Your task to perform on an android device: Open calendar and show me the third week of next month Image 0: 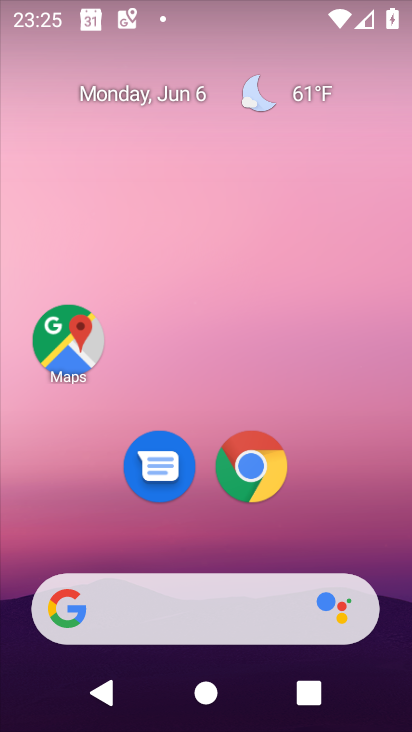
Step 0: press home button
Your task to perform on an android device: Open calendar and show me the third week of next month Image 1: 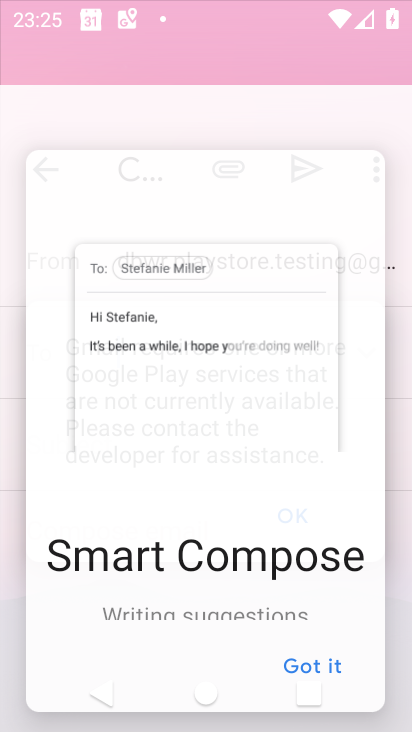
Step 1: drag from (374, 613) to (369, 48)
Your task to perform on an android device: Open calendar and show me the third week of next month Image 2: 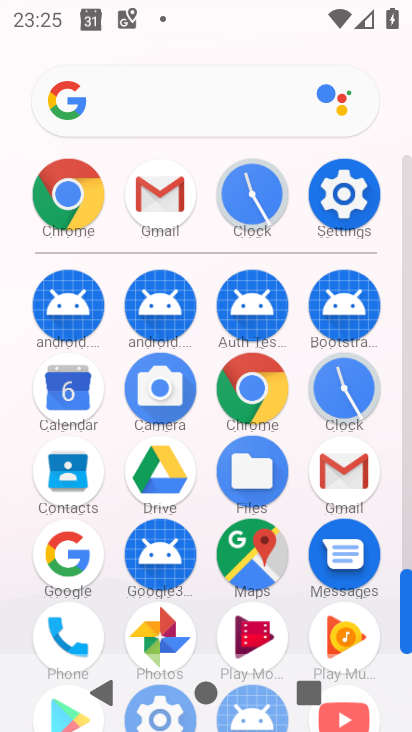
Step 2: click (95, 406)
Your task to perform on an android device: Open calendar and show me the third week of next month Image 3: 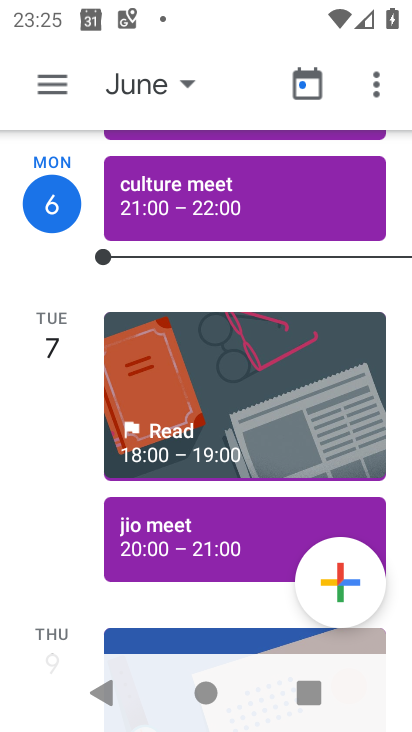
Step 3: click (169, 74)
Your task to perform on an android device: Open calendar and show me the third week of next month Image 4: 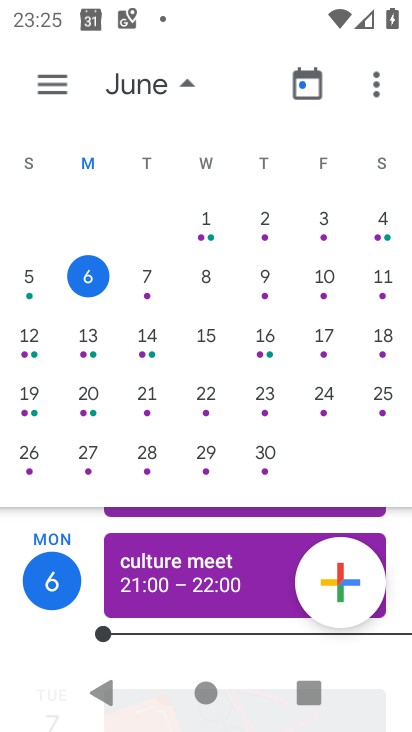
Step 4: drag from (410, 311) to (11, 286)
Your task to perform on an android device: Open calendar and show me the third week of next month Image 5: 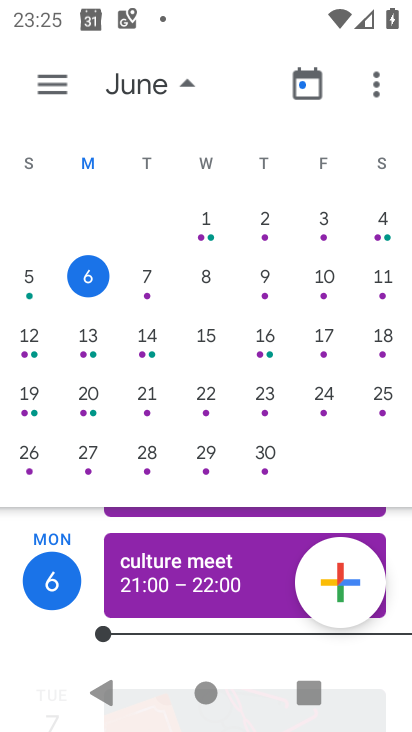
Step 5: drag from (398, 330) to (11, 449)
Your task to perform on an android device: Open calendar and show me the third week of next month Image 6: 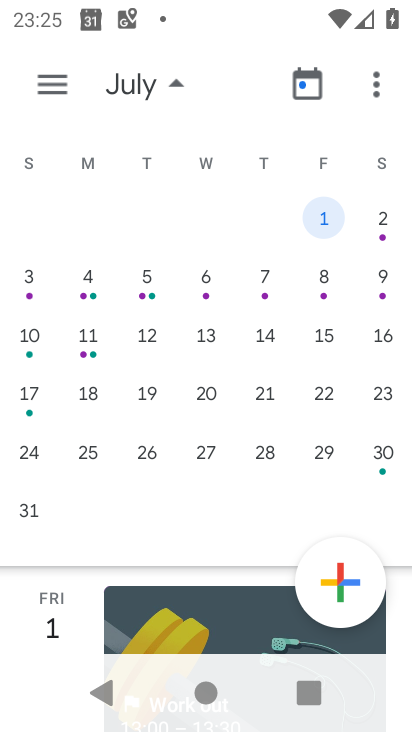
Step 6: click (329, 342)
Your task to perform on an android device: Open calendar and show me the third week of next month Image 7: 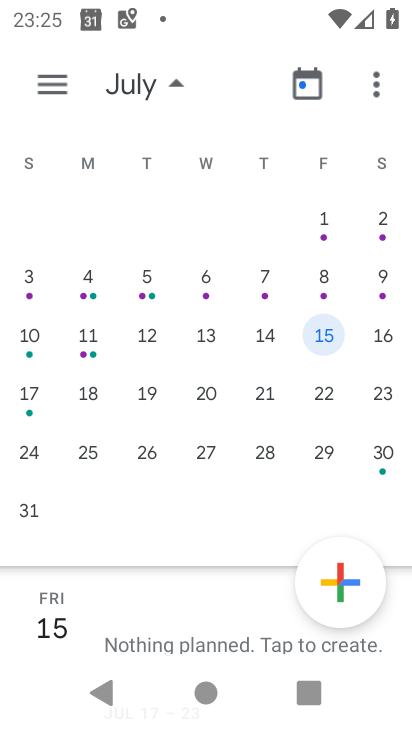
Step 7: task complete